Your task to perform on an android device: change notification settings in the gmail app Image 0: 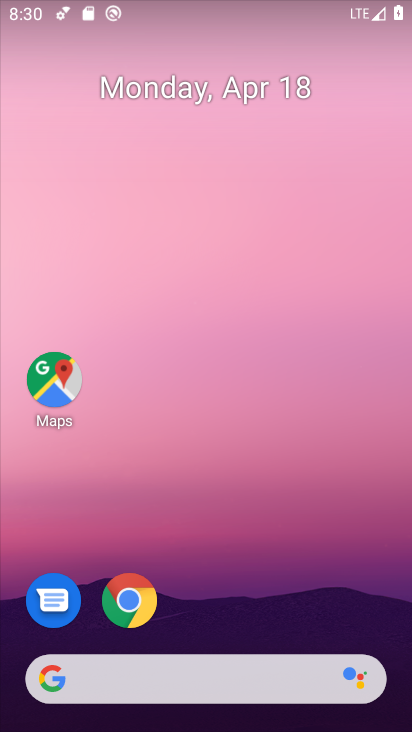
Step 0: drag from (342, 466) to (223, 19)
Your task to perform on an android device: change notification settings in the gmail app Image 1: 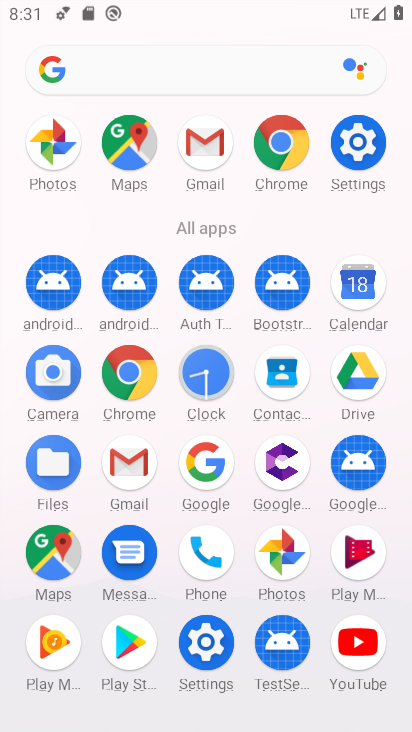
Step 1: drag from (10, 473) to (6, 217)
Your task to perform on an android device: change notification settings in the gmail app Image 2: 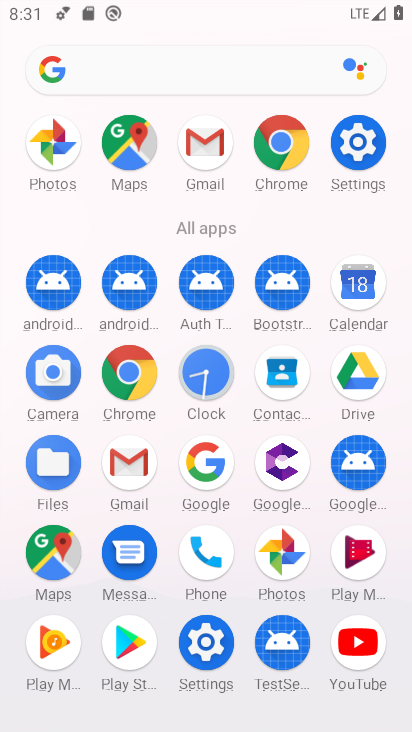
Step 2: click (209, 134)
Your task to perform on an android device: change notification settings in the gmail app Image 3: 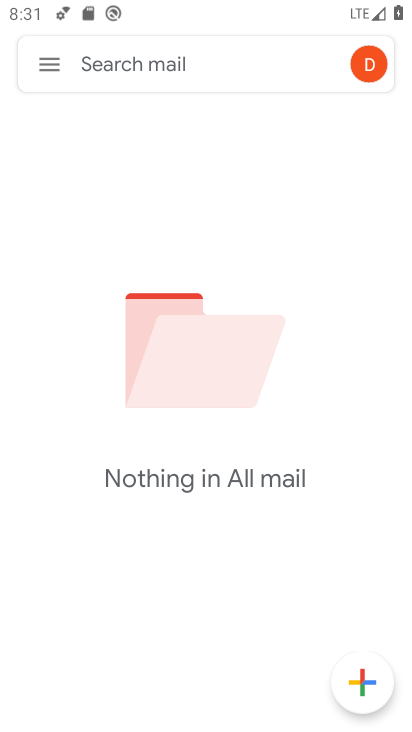
Step 3: click (47, 53)
Your task to perform on an android device: change notification settings in the gmail app Image 4: 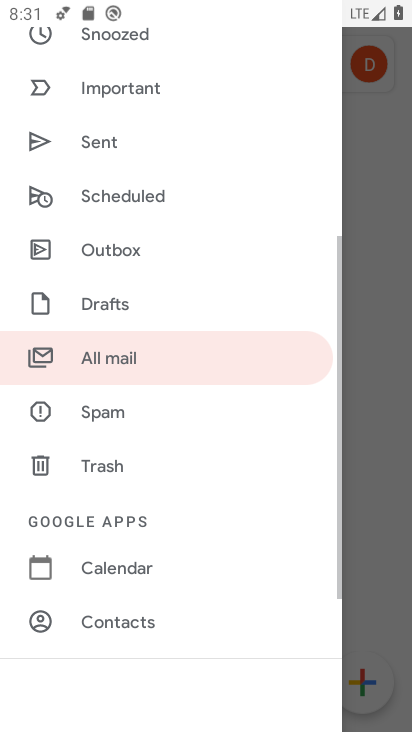
Step 4: drag from (200, 572) to (220, 126)
Your task to perform on an android device: change notification settings in the gmail app Image 5: 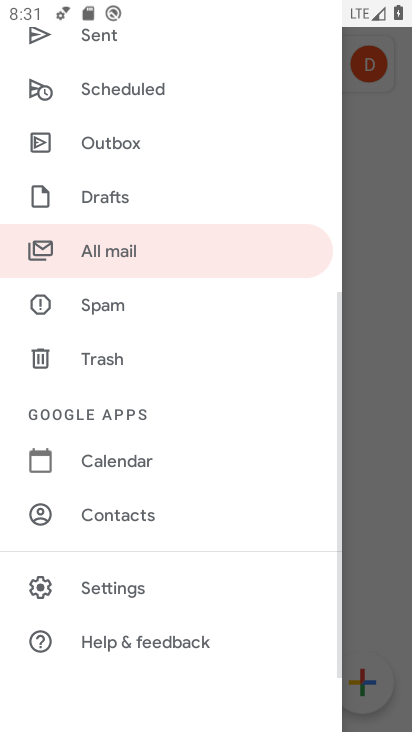
Step 5: click (140, 591)
Your task to perform on an android device: change notification settings in the gmail app Image 6: 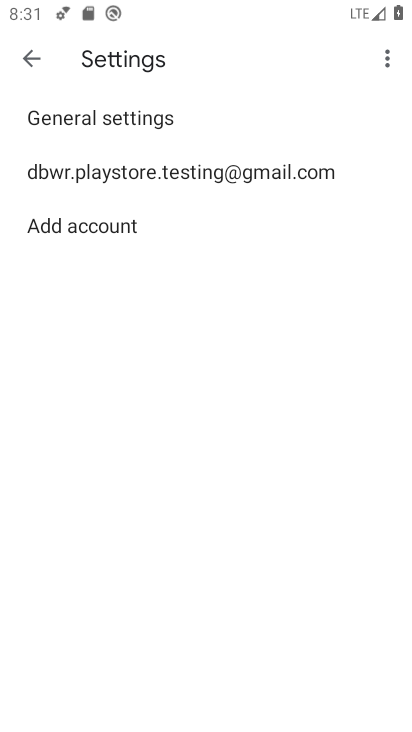
Step 6: click (218, 160)
Your task to perform on an android device: change notification settings in the gmail app Image 7: 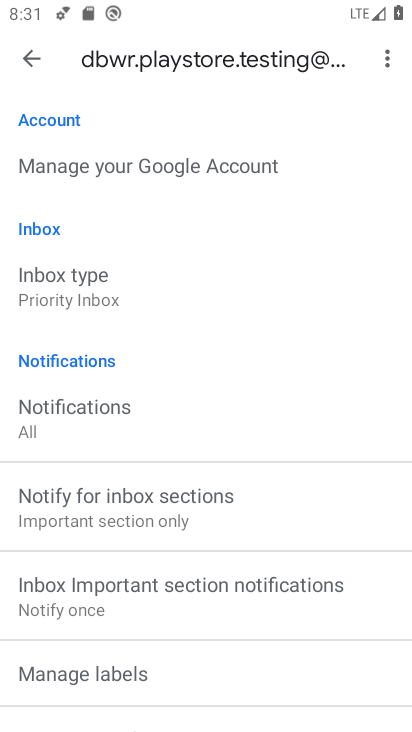
Step 7: drag from (256, 397) to (256, 156)
Your task to perform on an android device: change notification settings in the gmail app Image 8: 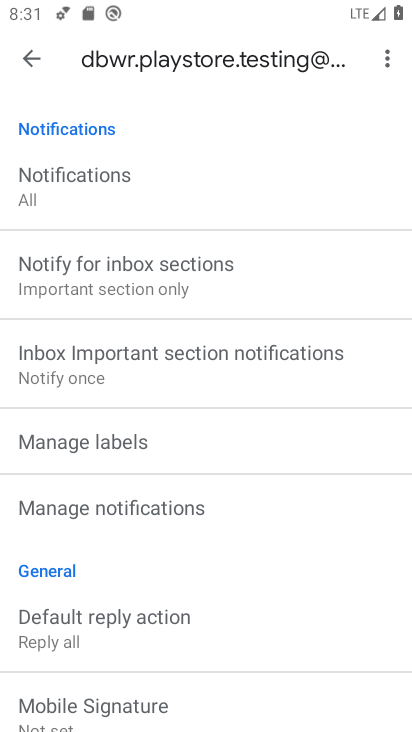
Step 8: click (169, 512)
Your task to perform on an android device: change notification settings in the gmail app Image 9: 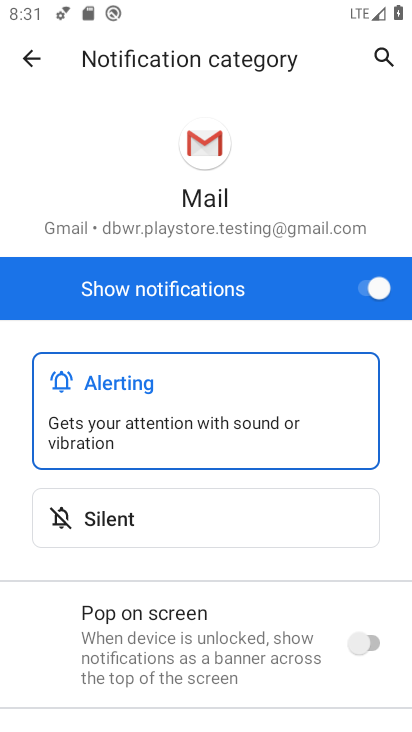
Step 9: click (379, 286)
Your task to perform on an android device: change notification settings in the gmail app Image 10: 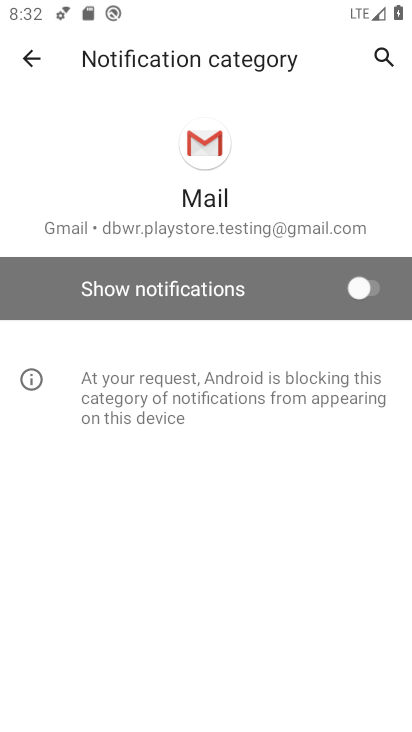
Step 10: task complete